Your task to perform on an android device: Do I have any events this weekend? Image 0: 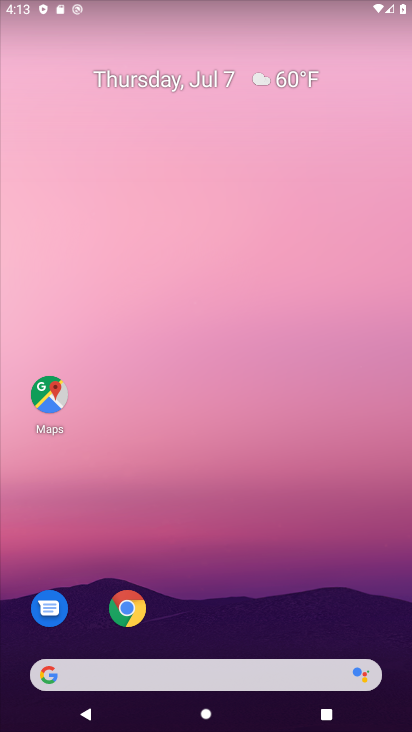
Step 0: drag from (305, 627) to (288, 80)
Your task to perform on an android device: Do I have any events this weekend? Image 1: 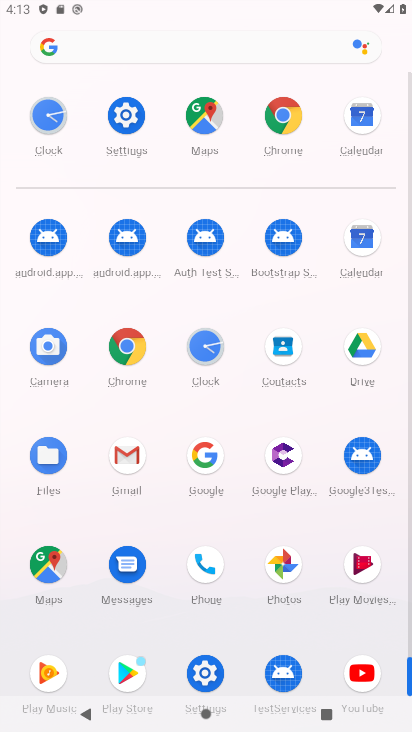
Step 1: click (362, 122)
Your task to perform on an android device: Do I have any events this weekend? Image 2: 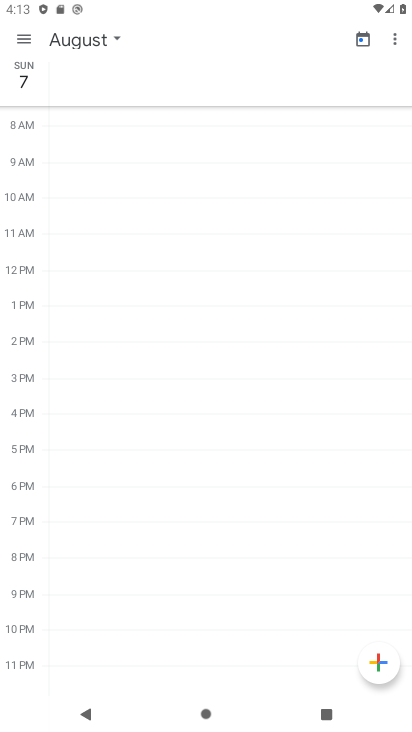
Step 2: click (30, 32)
Your task to perform on an android device: Do I have any events this weekend? Image 3: 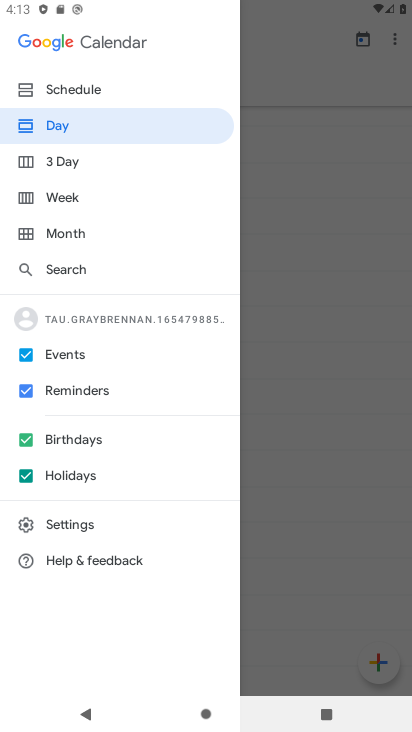
Step 3: click (74, 161)
Your task to perform on an android device: Do I have any events this weekend? Image 4: 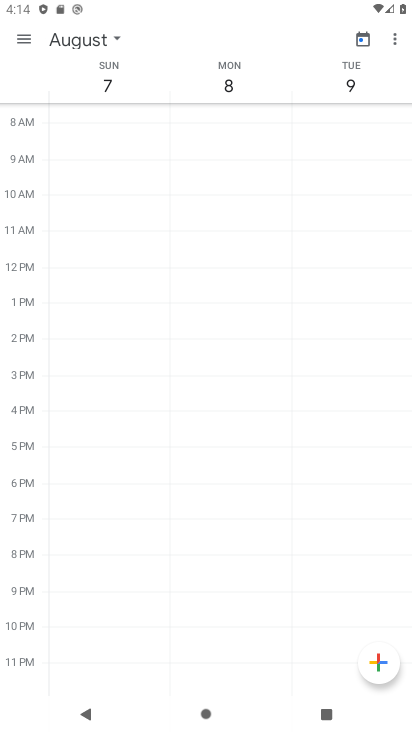
Step 4: click (113, 35)
Your task to perform on an android device: Do I have any events this weekend? Image 5: 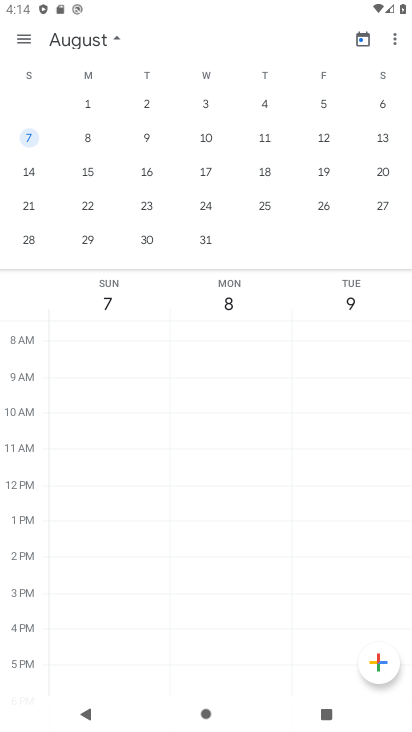
Step 5: drag from (147, 150) to (406, 135)
Your task to perform on an android device: Do I have any events this weekend? Image 6: 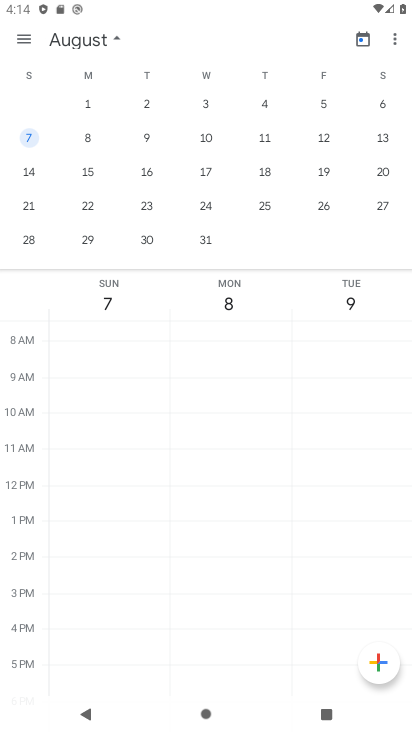
Step 6: drag from (37, 159) to (411, 159)
Your task to perform on an android device: Do I have any events this weekend? Image 7: 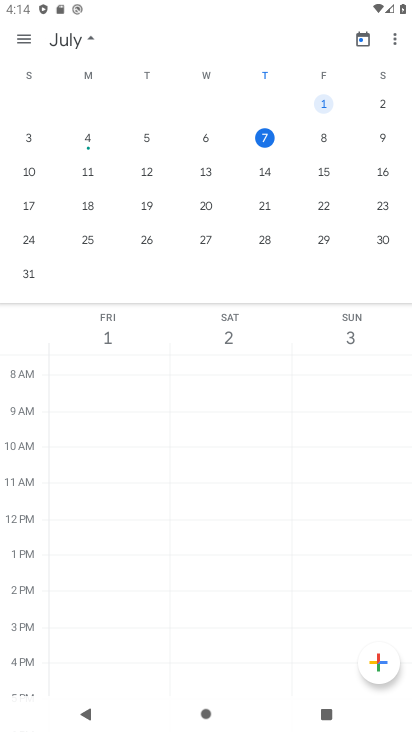
Step 7: click (321, 131)
Your task to perform on an android device: Do I have any events this weekend? Image 8: 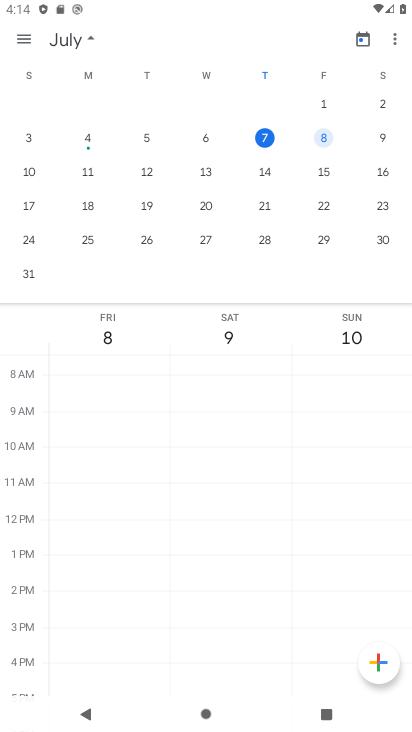
Step 8: click (309, 451)
Your task to perform on an android device: Do I have any events this weekend? Image 9: 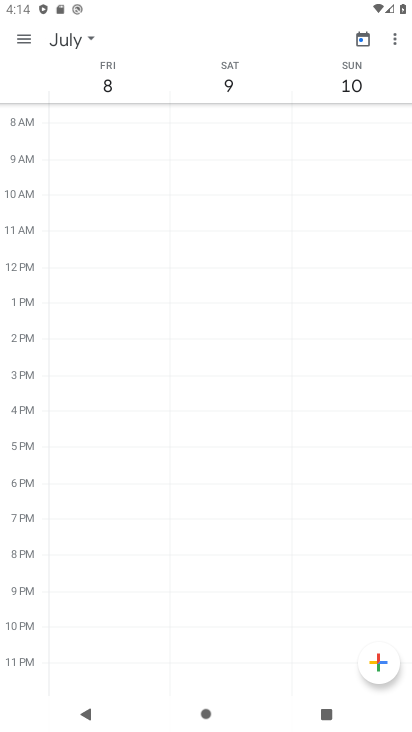
Step 9: task complete